Your task to perform on an android device: change alarm snooze length Image 0: 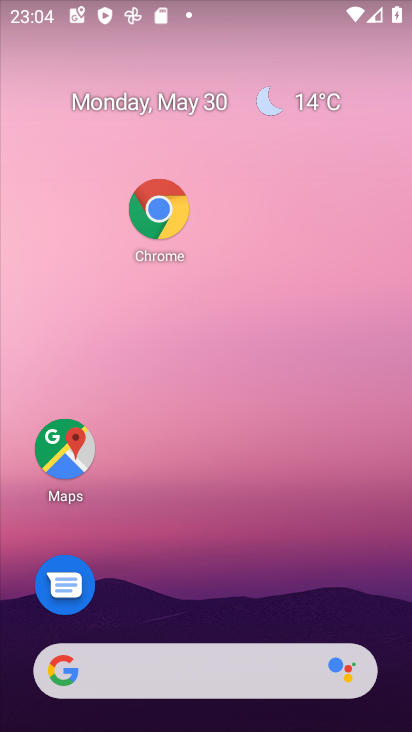
Step 0: drag from (185, 553) to (271, 86)
Your task to perform on an android device: change alarm snooze length Image 1: 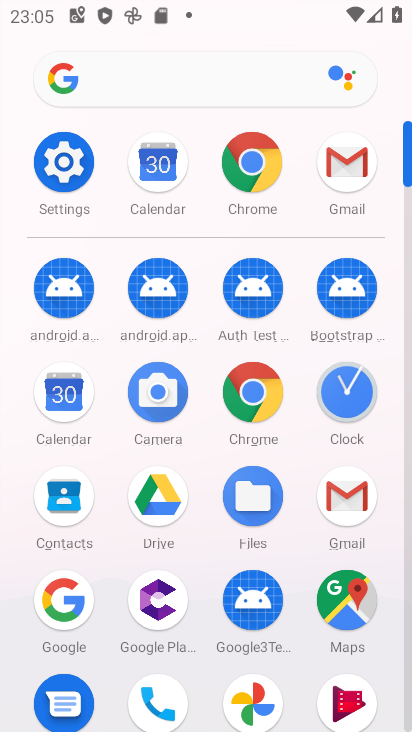
Step 1: click (345, 404)
Your task to perform on an android device: change alarm snooze length Image 2: 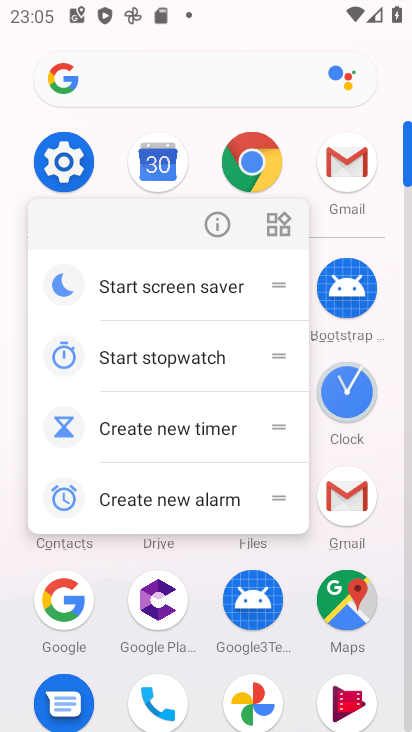
Step 2: click (208, 227)
Your task to perform on an android device: change alarm snooze length Image 3: 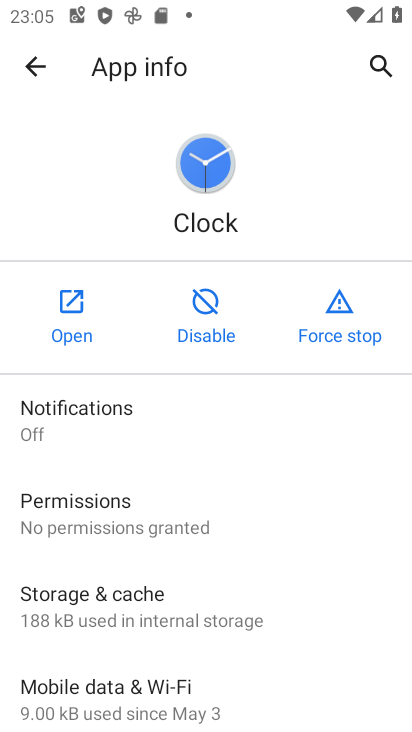
Step 3: click (77, 307)
Your task to perform on an android device: change alarm snooze length Image 4: 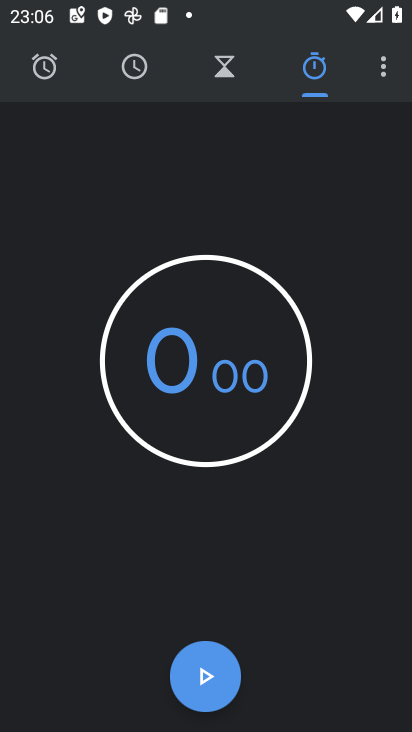
Step 4: click (398, 75)
Your task to perform on an android device: change alarm snooze length Image 5: 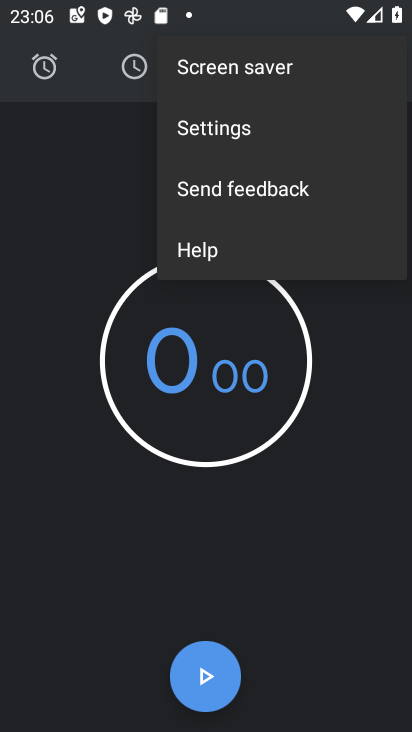
Step 5: click (228, 127)
Your task to perform on an android device: change alarm snooze length Image 6: 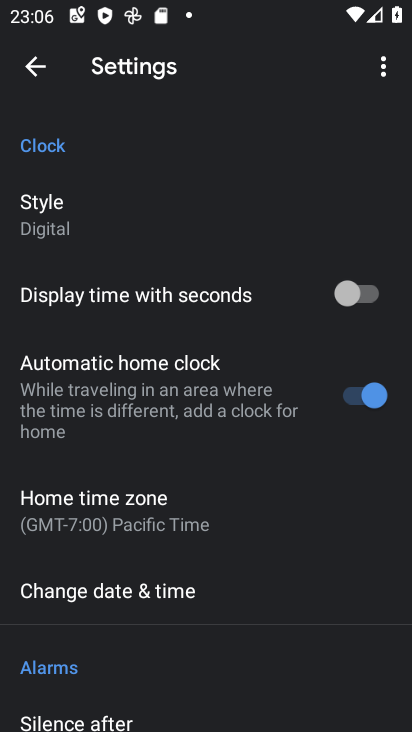
Step 6: drag from (168, 544) to (305, 136)
Your task to perform on an android device: change alarm snooze length Image 7: 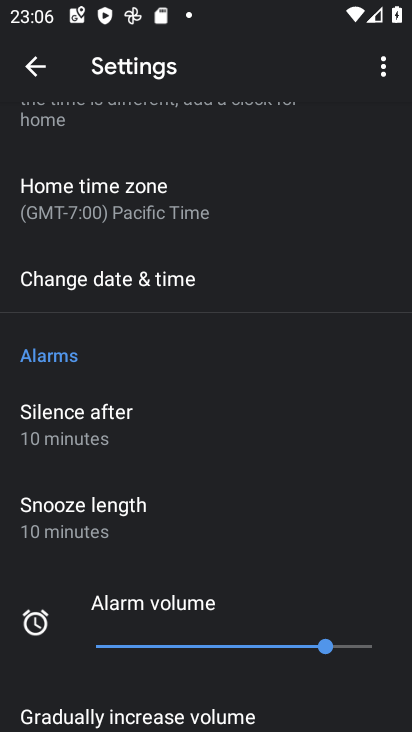
Step 7: click (128, 496)
Your task to perform on an android device: change alarm snooze length Image 8: 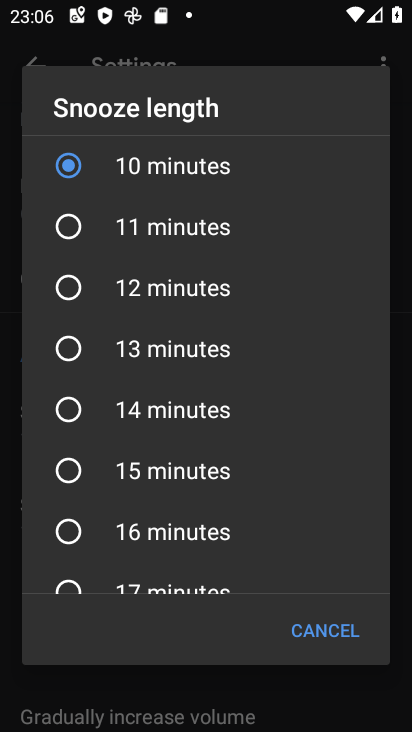
Step 8: drag from (259, 319) to (405, 174)
Your task to perform on an android device: change alarm snooze length Image 9: 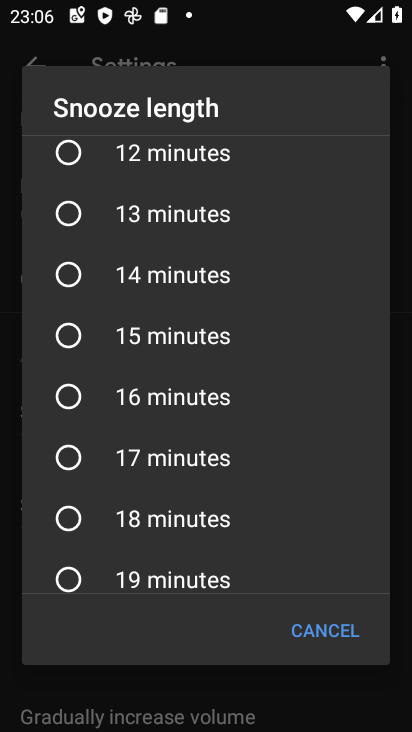
Step 9: click (125, 457)
Your task to perform on an android device: change alarm snooze length Image 10: 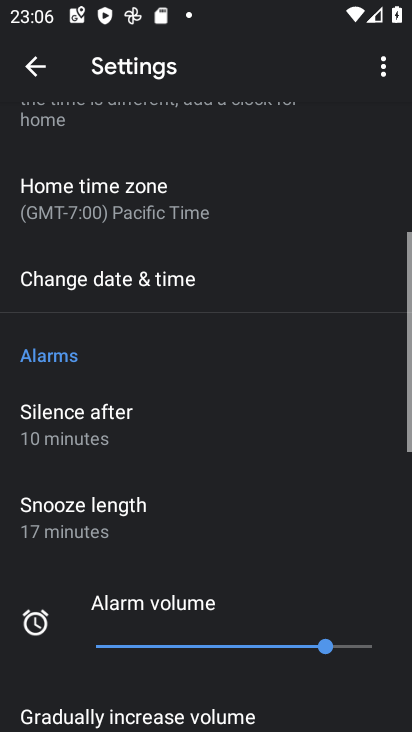
Step 10: task complete